Your task to perform on an android device: Go to notification settings Image 0: 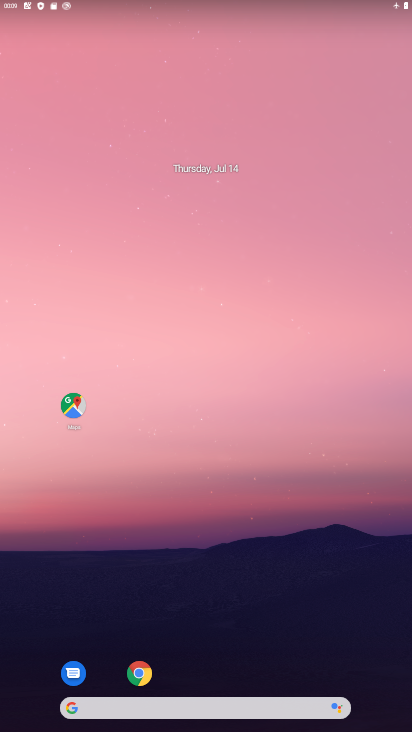
Step 0: drag from (227, 663) to (191, 184)
Your task to perform on an android device: Go to notification settings Image 1: 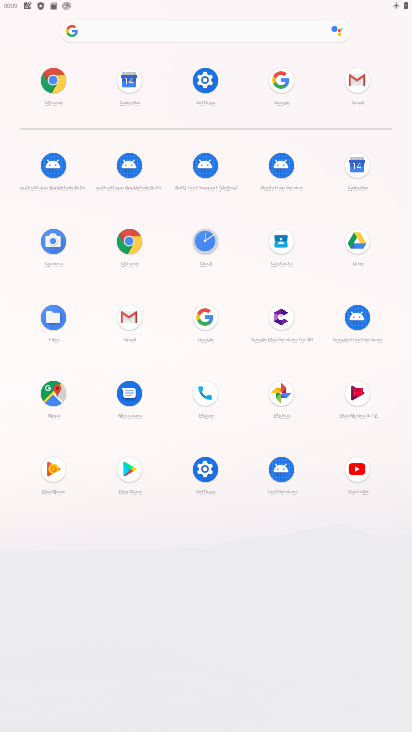
Step 1: click (212, 87)
Your task to perform on an android device: Go to notification settings Image 2: 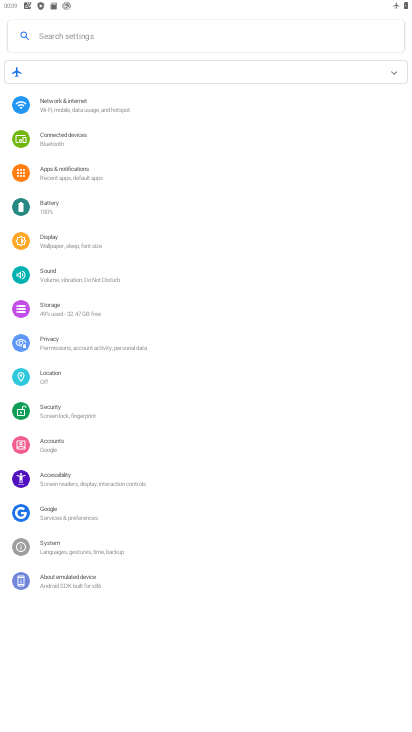
Step 2: click (64, 176)
Your task to perform on an android device: Go to notification settings Image 3: 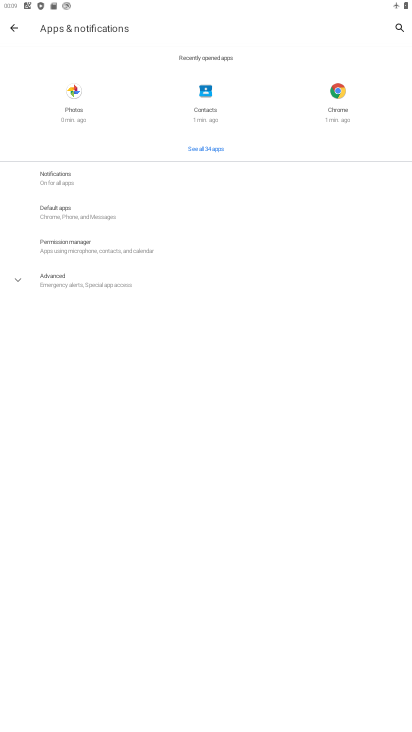
Step 3: task complete